Your task to perform on an android device: turn vacation reply on in the gmail app Image 0: 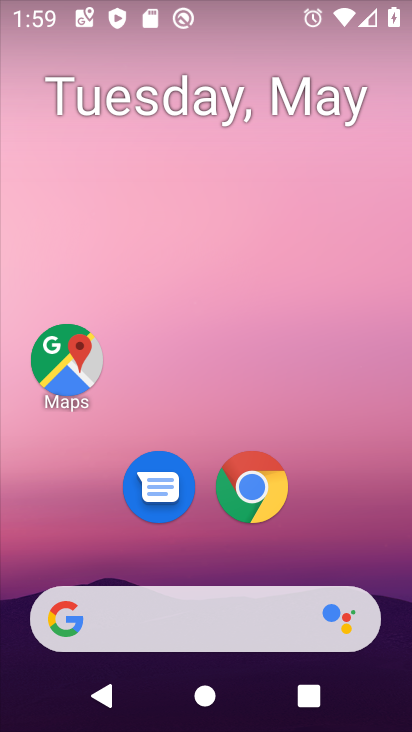
Step 0: drag from (356, 550) to (376, 146)
Your task to perform on an android device: turn vacation reply on in the gmail app Image 1: 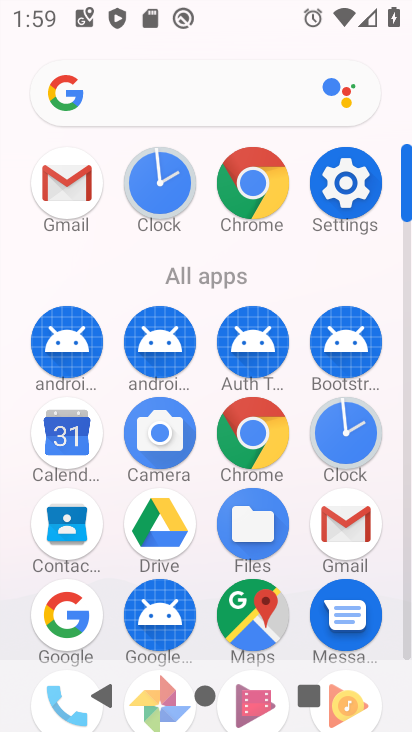
Step 1: click (353, 543)
Your task to perform on an android device: turn vacation reply on in the gmail app Image 2: 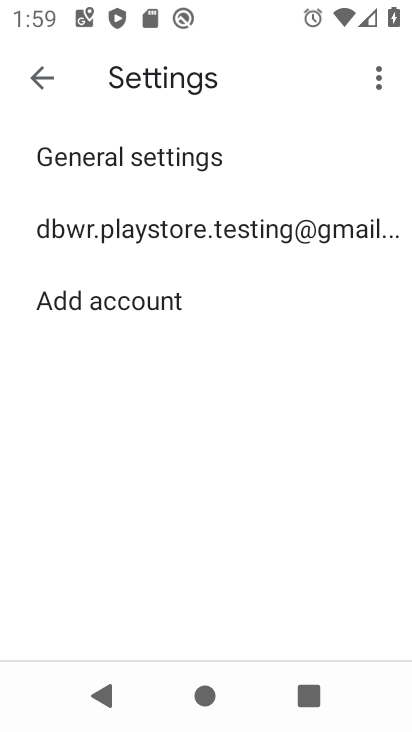
Step 2: click (142, 236)
Your task to perform on an android device: turn vacation reply on in the gmail app Image 3: 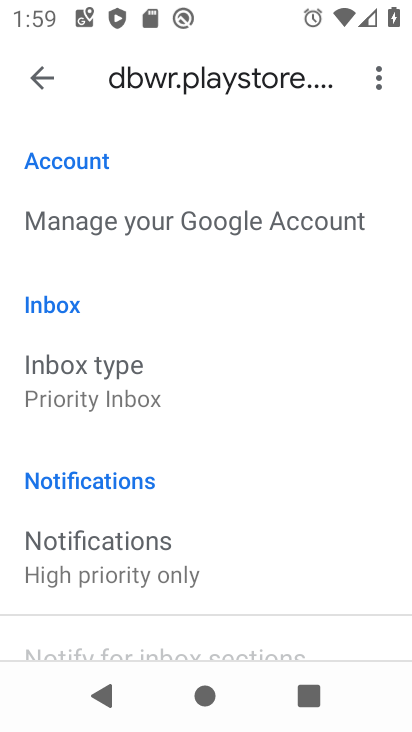
Step 3: drag from (311, 416) to (323, 332)
Your task to perform on an android device: turn vacation reply on in the gmail app Image 4: 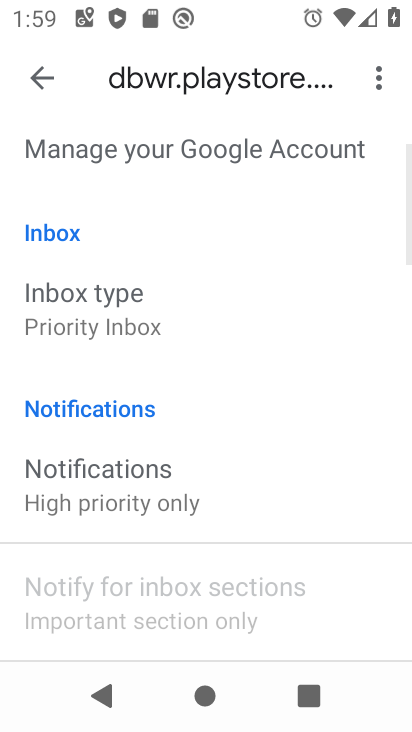
Step 4: drag from (330, 467) to (326, 359)
Your task to perform on an android device: turn vacation reply on in the gmail app Image 5: 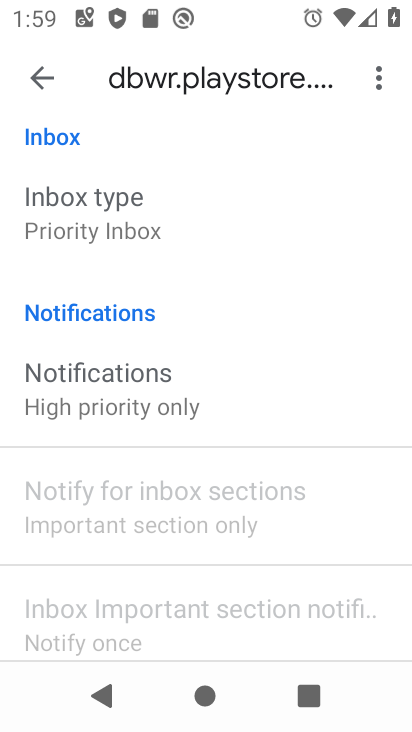
Step 5: drag from (342, 472) to (336, 364)
Your task to perform on an android device: turn vacation reply on in the gmail app Image 6: 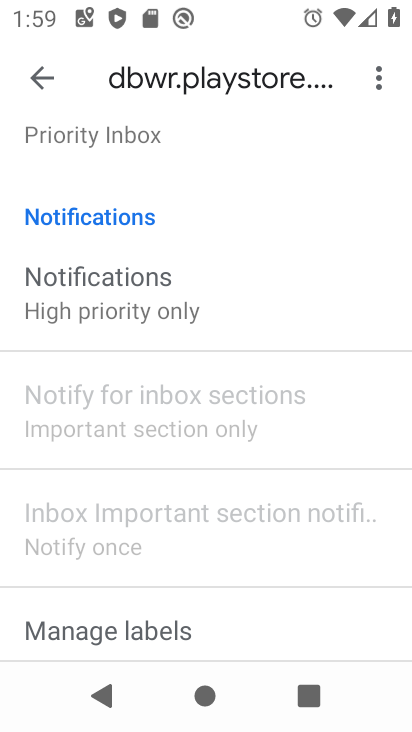
Step 6: drag from (340, 466) to (345, 367)
Your task to perform on an android device: turn vacation reply on in the gmail app Image 7: 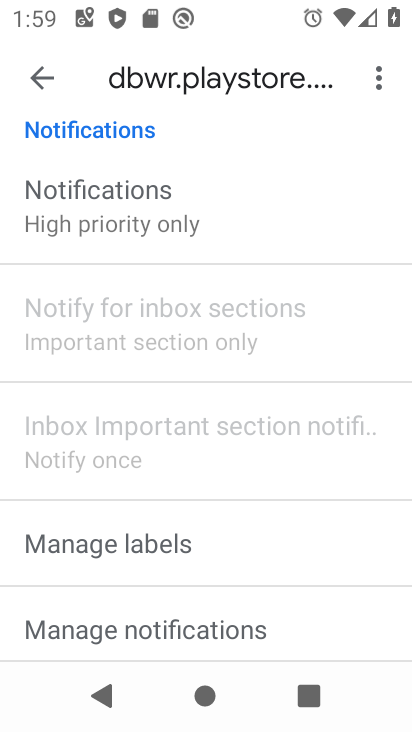
Step 7: drag from (348, 463) to (357, 346)
Your task to perform on an android device: turn vacation reply on in the gmail app Image 8: 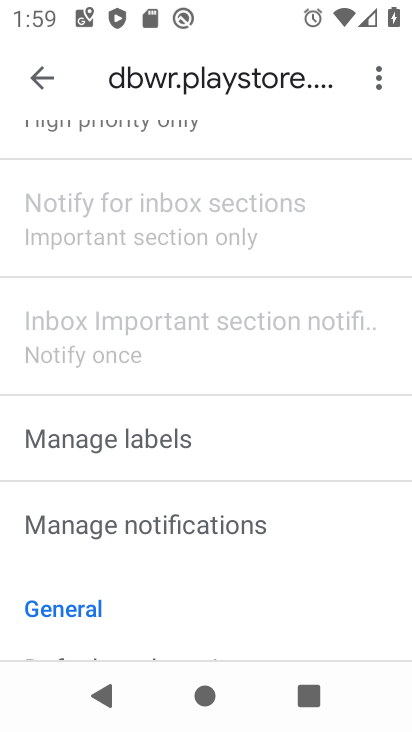
Step 8: drag from (346, 472) to (353, 364)
Your task to perform on an android device: turn vacation reply on in the gmail app Image 9: 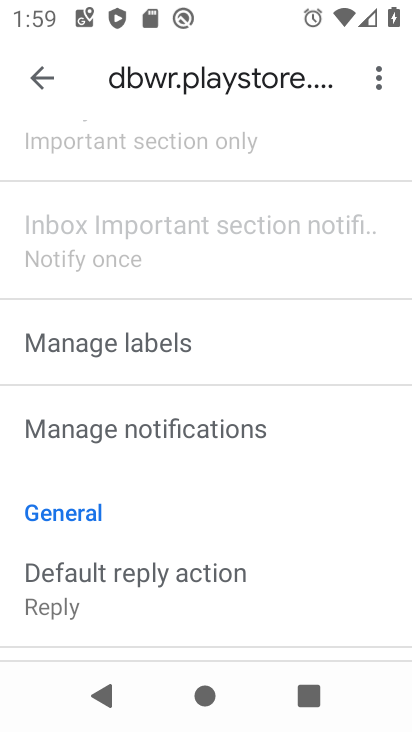
Step 9: drag from (365, 480) to (376, 363)
Your task to perform on an android device: turn vacation reply on in the gmail app Image 10: 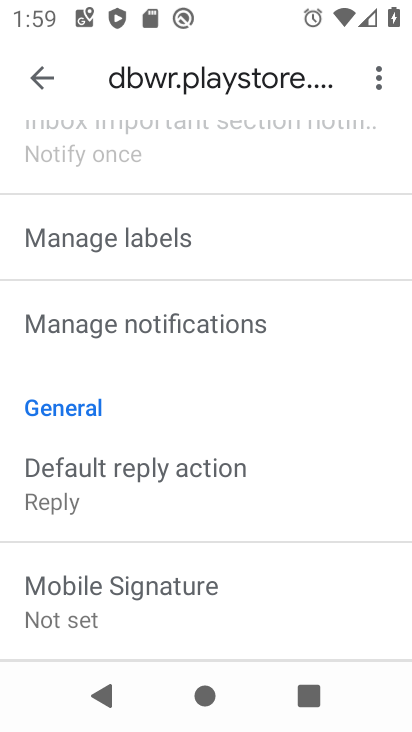
Step 10: drag from (353, 495) to (377, 392)
Your task to perform on an android device: turn vacation reply on in the gmail app Image 11: 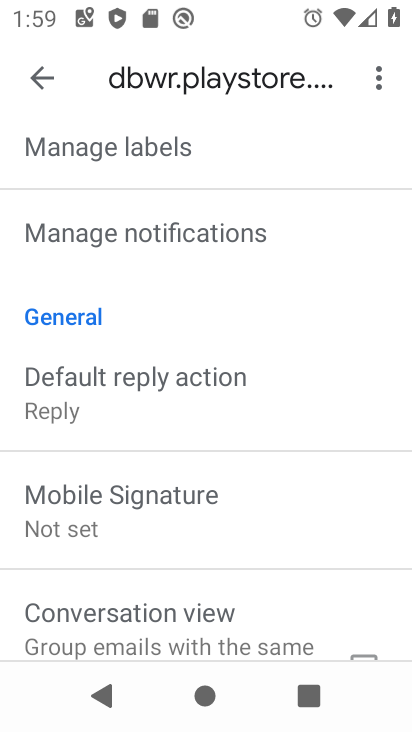
Step 11: drag from (353, 509) to (370, 397)
Your task to perform on an android device: turn vacation reply on in the gmail app Image 12: 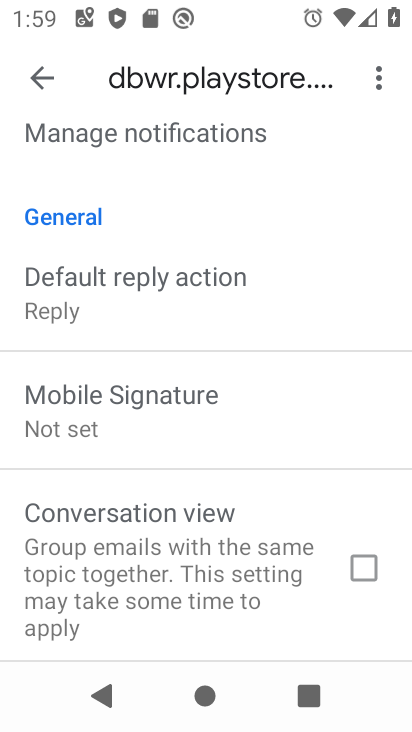
Step 12: drag from (323, 542) to (326, 389)
Your task to perform on an android device: turn vacation reply on in the gmail app Image 13: 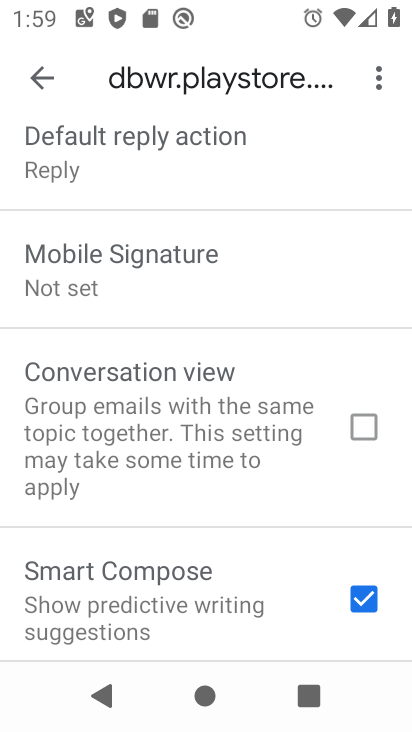
Step 13: drag from (312, 543) to (317, 398)
Your task to perform on an android device: turn vacation reply on in the gmail app Image 14: 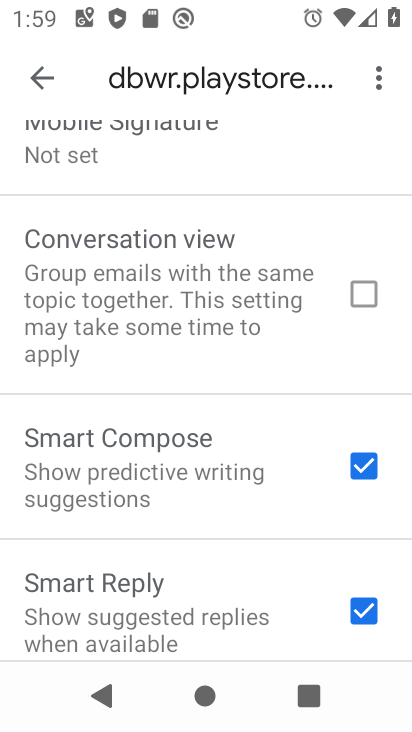
Step 14: drag from (305, 551) to (320, 374)
Your task to perform on an android device: turn vacation reply on in the gmail app Image 15: 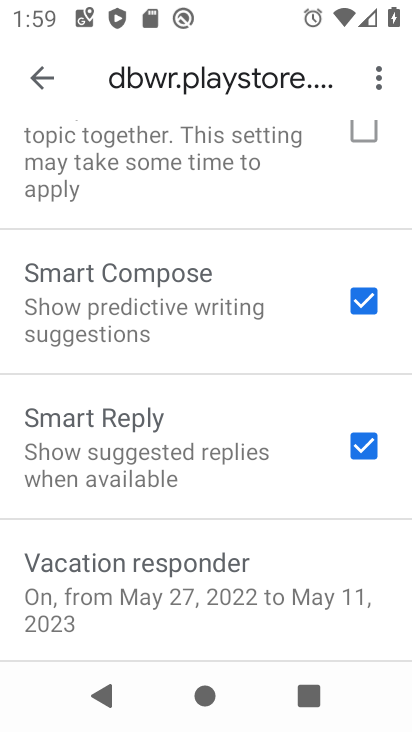
Step 15: drag from (309, 540) to (307, 400)
Your task to perform on an android device: turn vacation reply on in the gmail app Image 16: 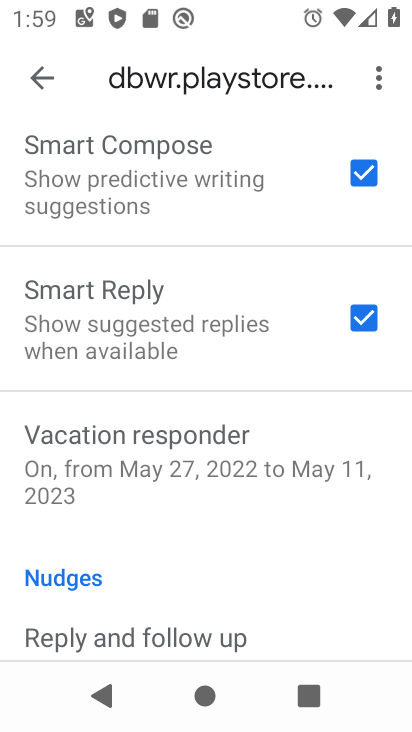
Step 16: click (320, 459)
Your task to perform on an android device: turn vacation reply on in the gmail app Image 17: 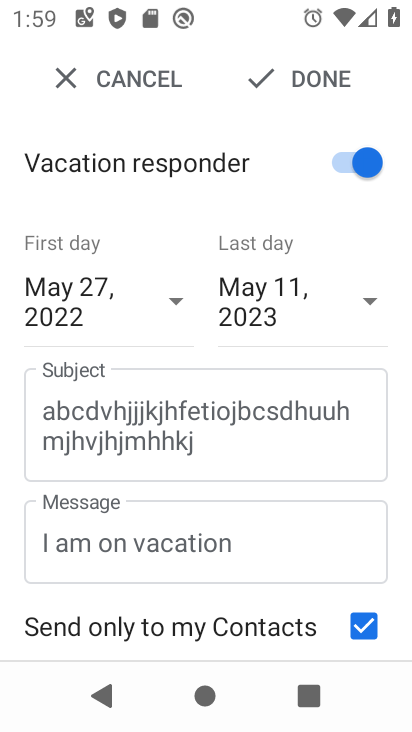
Step 17: task complete